Your task to perform on an android device: Toggle the flashlight Image 0: 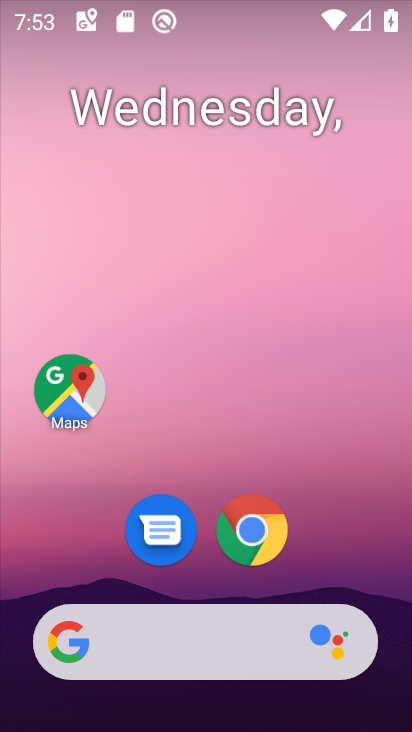
Step 0: drag from (397, 626) to (315, 18)
Your task to perform on an android device: Toggle the flashlight Image 1: 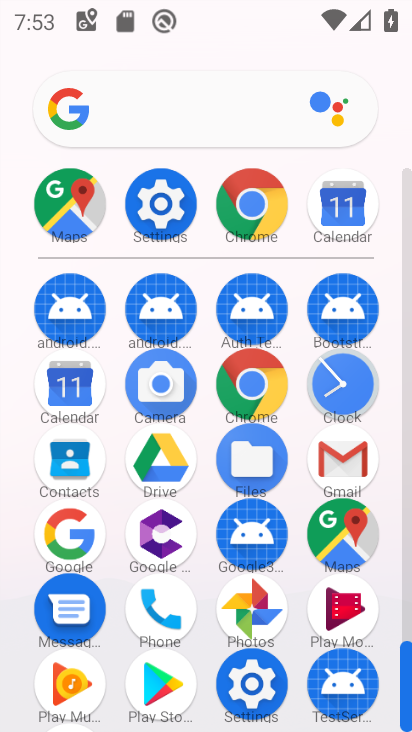
Step 1: click (142, 212)
Your task to perform on an android device: Toggle the flashlight Image 2: 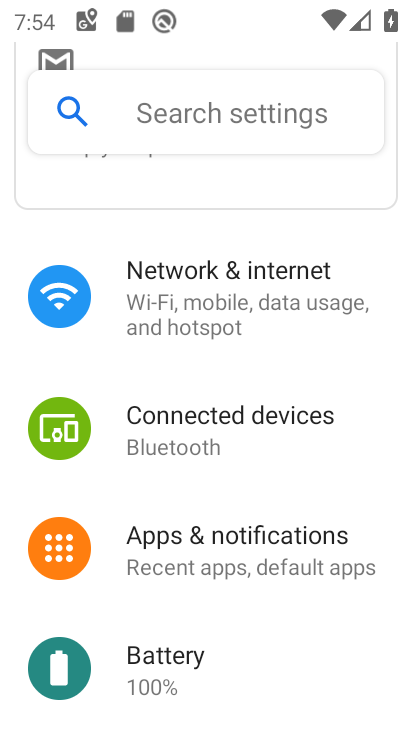
Step 2: task complete